Your task to perform on an android device: star an email in the gmail app Image 0: 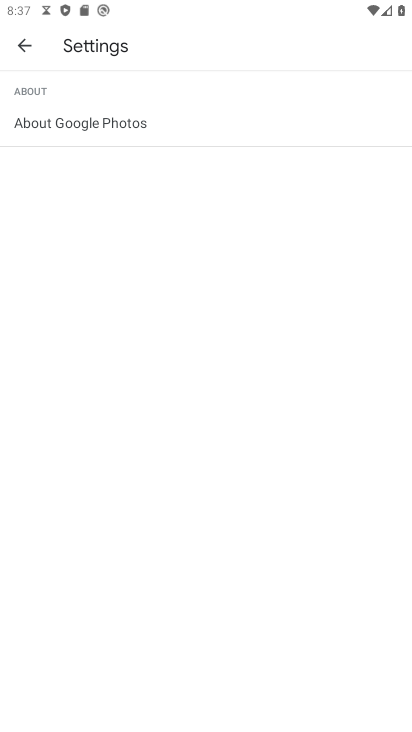
Step 0: press home button
Your task to perform on an android device: star an email in the gmail app Image 1: 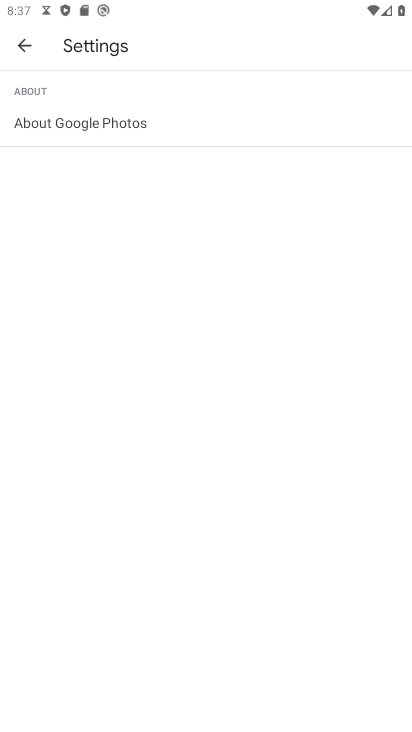
Step 1: press home button
Your task to perform on an android device: star an email in the gmail app Image 2: 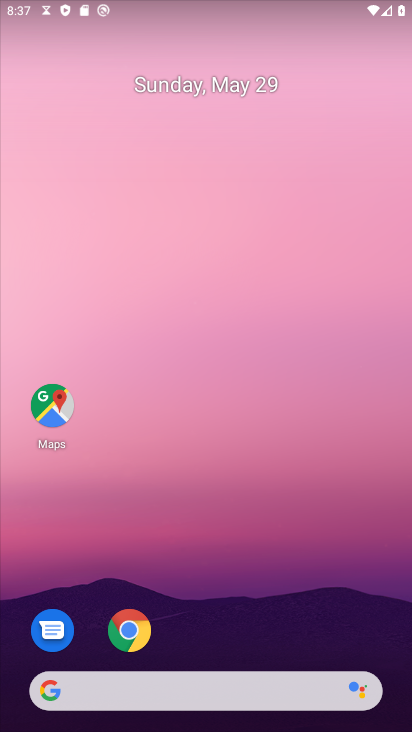
Step 2: drag from (240, 634) to (201, 93)
Your task to perform on an android device: star an email in the gmail app Image 3: 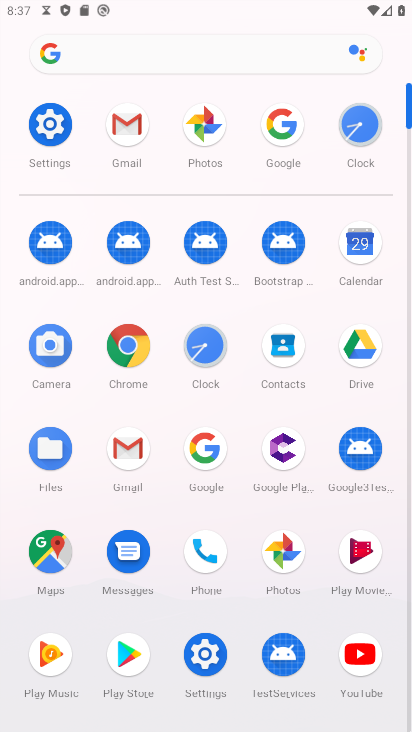
Step 3: click (129, 119)
Your task to perform on an android device: star an email in the gmail app Image 4: 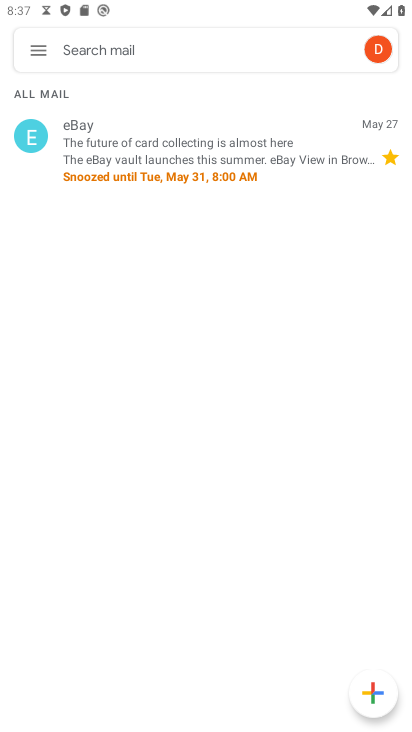
Step 4: click (43, 140)
Your task to perform on an android device: star an email in the gmail app Image 5: 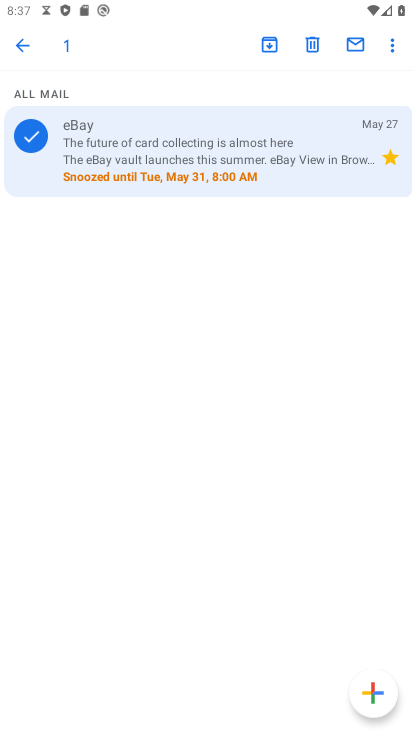
Step 5: click (393, 53)
Your task to perform on an android device: star an email in the gmail app Image 6: 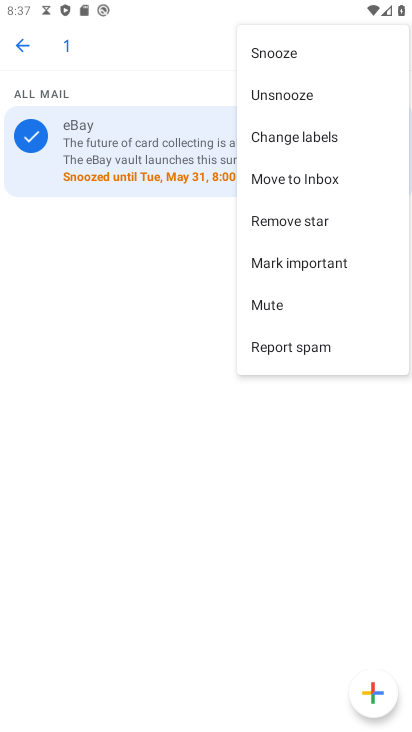
Step 6: click (202, 292)
Your task to perform on an android device: star an email in the gmail app Image 7: 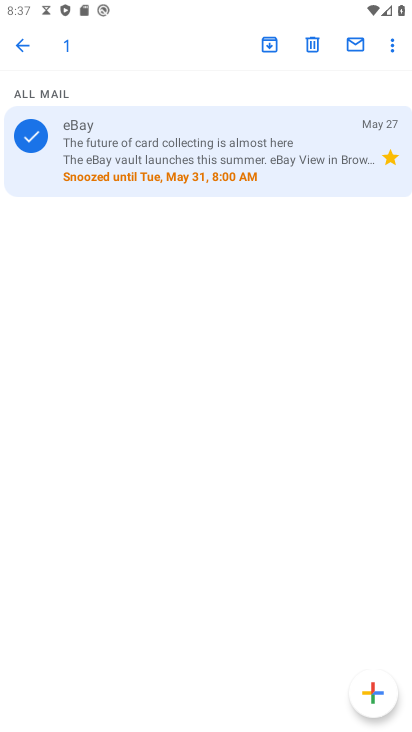
Step 7: task complete